Your task to perform on an android device: find photos in the google photos app Image 0: 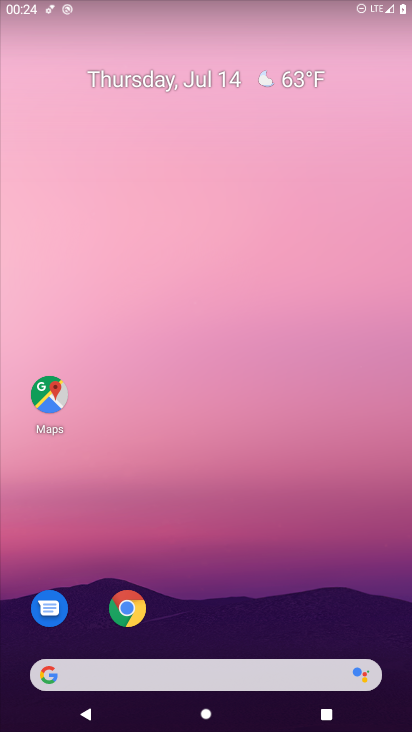
Step 0: press home button
Your task to perform on an android device: find photos in the google photos app Image 1: 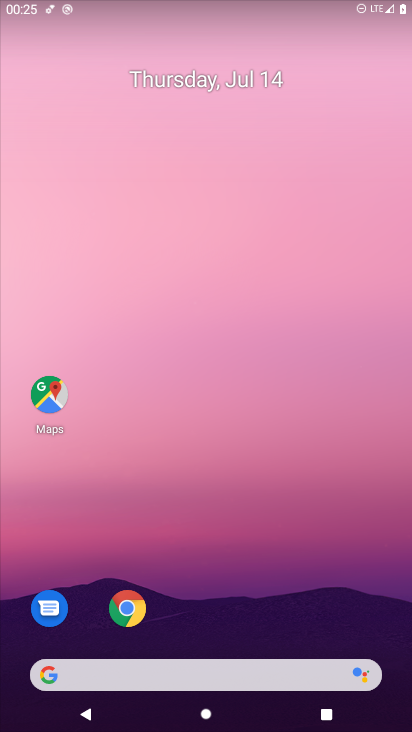
Step 1: drag from (265, 511) to (250, 323)
Your task to perform on an android device: find photos in the google photos app Image 2: 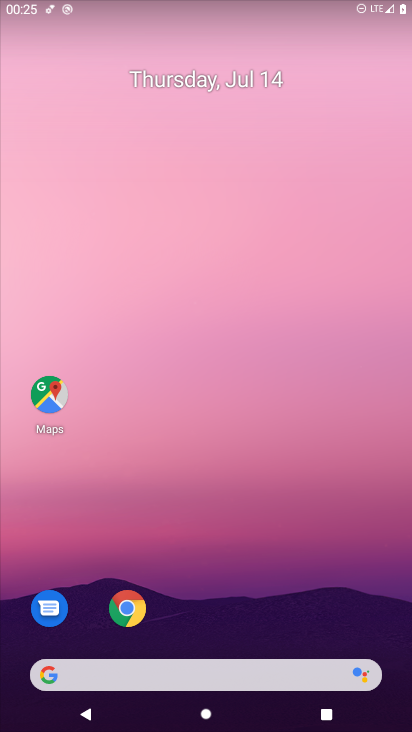
Step 2: drag from (237, 650) to (187, 235)
Your task to perform on an android device: find photos in the google photos app Image 3: 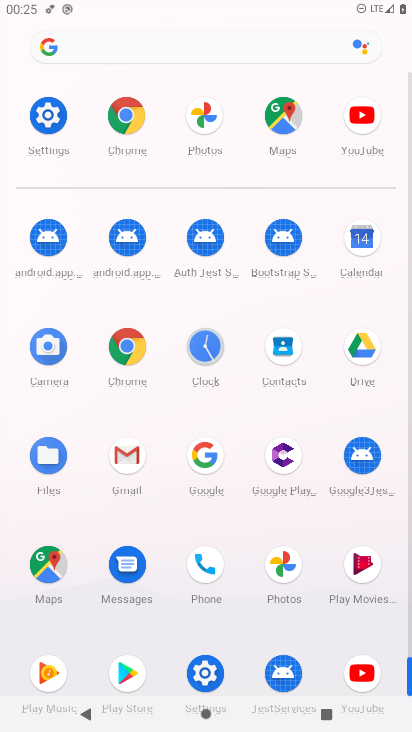
Step 3: click (200, 118)
Your task to perform on an android device: find photos in the google photos app Image 4: 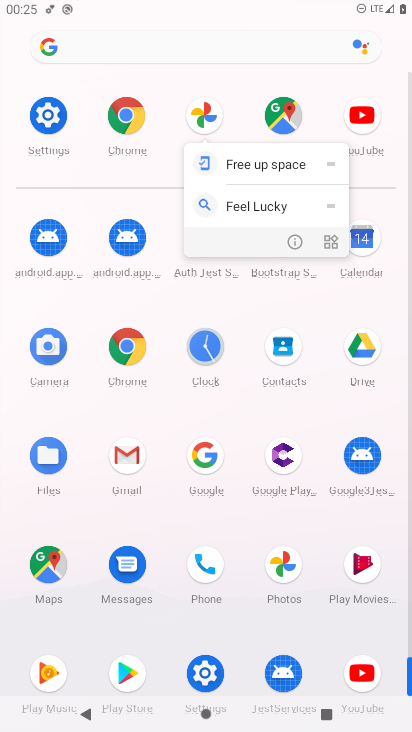
Step 4: click (200, 118)
Your task to perform on an android device: find photos in the google photos app Image 5: 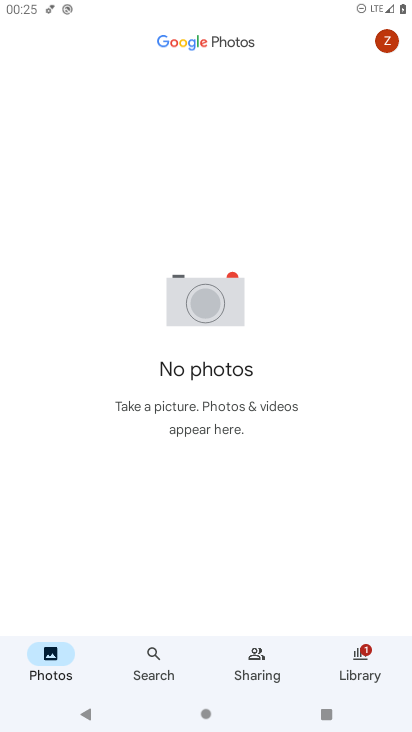
Step 5: click (51, 657)
Your task to perform on an android device: find photos in the google photos app Image 6: 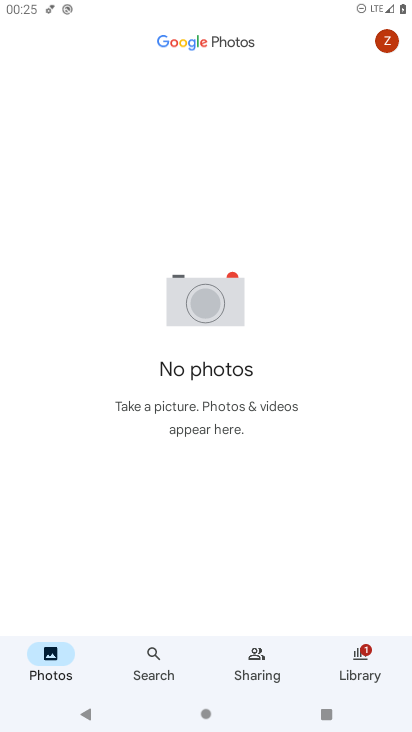
Step 6: task complete